Your task to perform on an android device: delete browsing data in the chrome app Image 0: 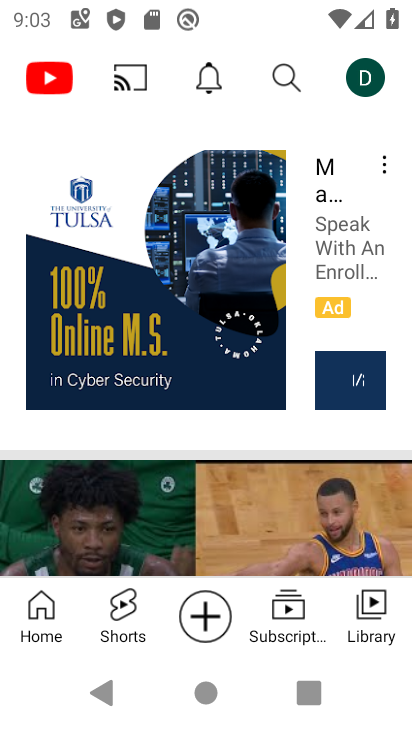
Step 0: press home button
Your task to perform on an android device: delete browsing data in the chrome app Image 1: 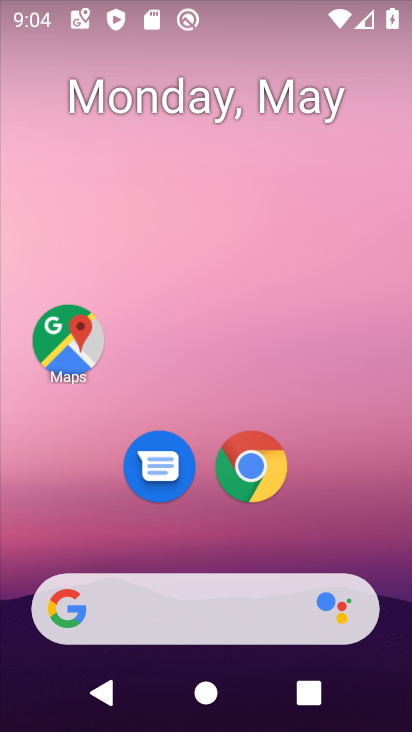
Step 1: drag from (239, 646) to (276, 227)
Your task to perform on an android device: delete browsing data in the chrome app Image 2: 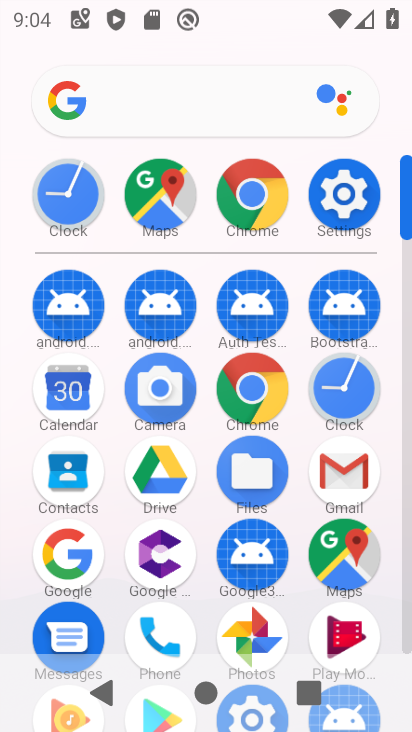
Step 2: drag from (246, 528) to (266, 431)
Your task to perform on an android device: delete browsing data in the chrome app Image 3: 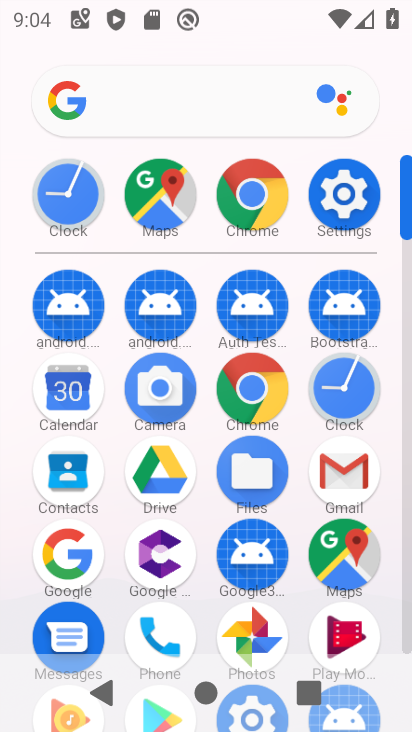
Step 3: click (252, 208)
Your task to perform on an android device: delete browsing data in the chrome app Image 4: 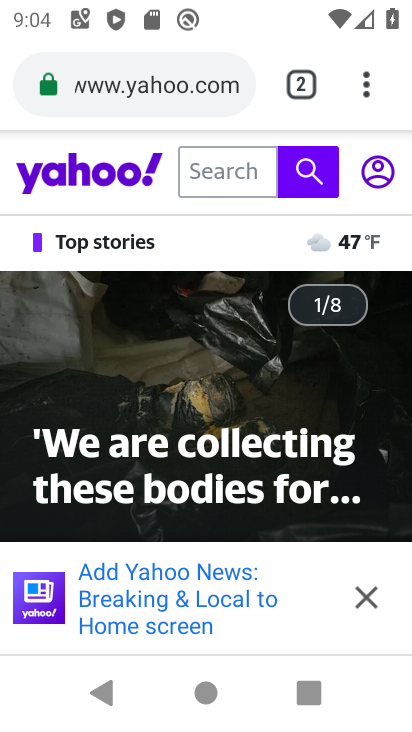
Step 4: click (370, 98)
Your task to perform on an android device: delete browsing data in the chrome app Image 5: 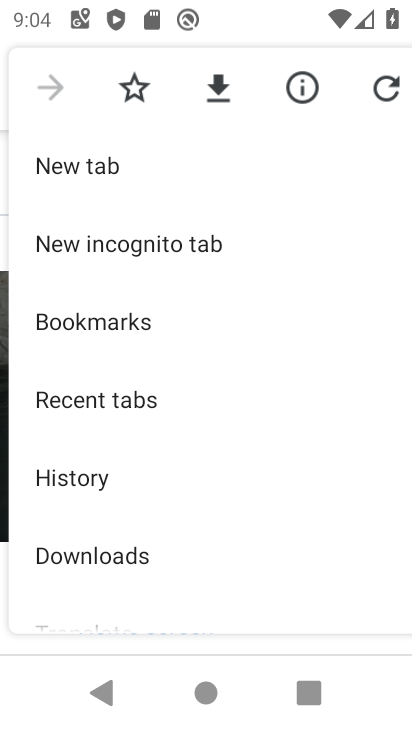
Step 5: drag from (174, 503) to (195, 336)
Your task to perform on an android device: delete browsing data in the chrome app Image 6: 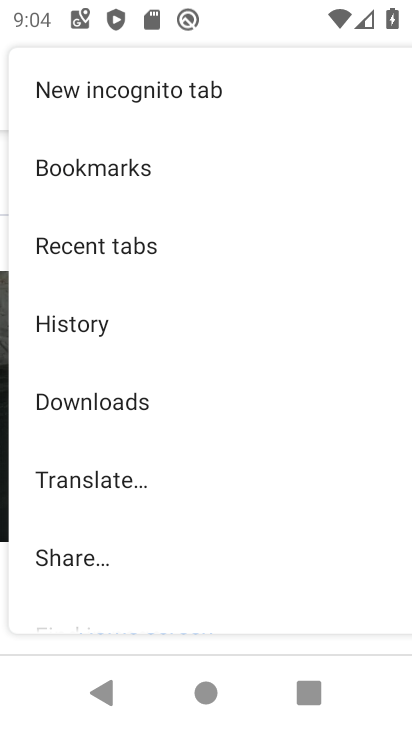
Step 6: click (89, 319)
Your task to perform on an android device: delete browsing data in the chrome app Image 7: 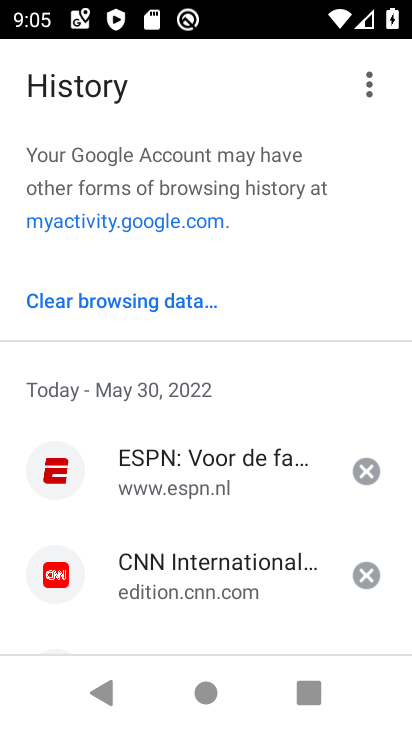
Step 7: click (101, 260)
Your task to perform on an android device: delete browsing data in the chrome app Image 8: 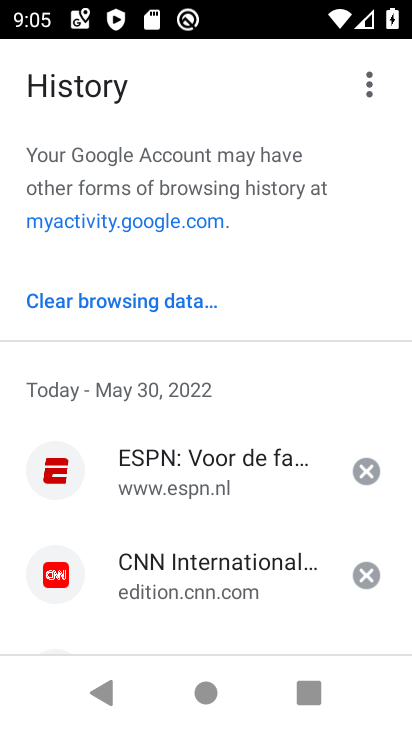
Step 8: click (107, 302)
Your task to perform on an android device: delete browsing data in the chrome app Image 9: 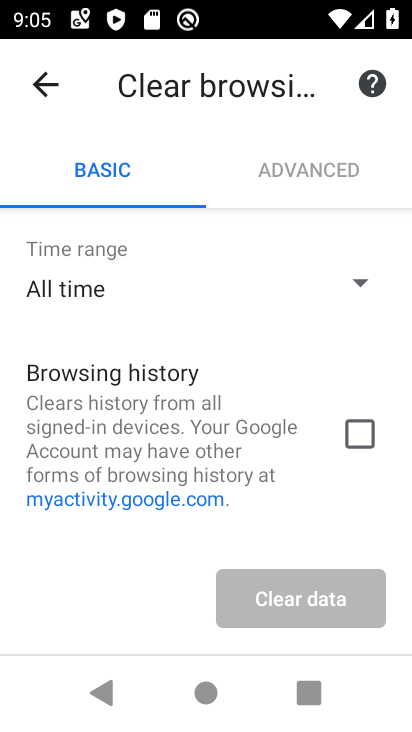
Step 9: drag from (275, 253) to (285, 80)
Your task to perform on an android device: delete browsing data in the chrome app Image 10: 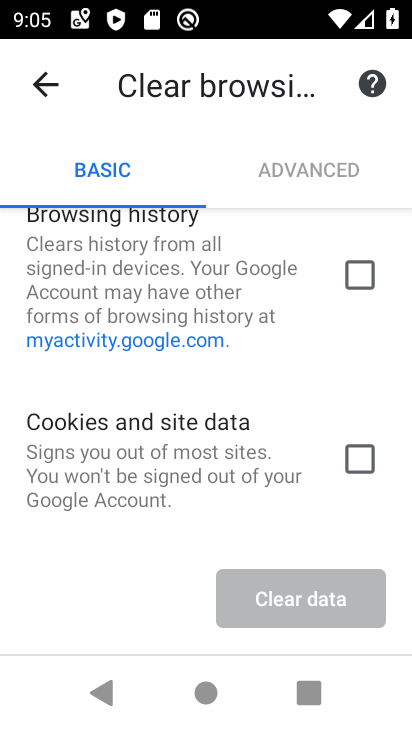
Step 10: click (350, 264)
Your task to perform on an android device: delete browsing data in the chrome app Image 11: 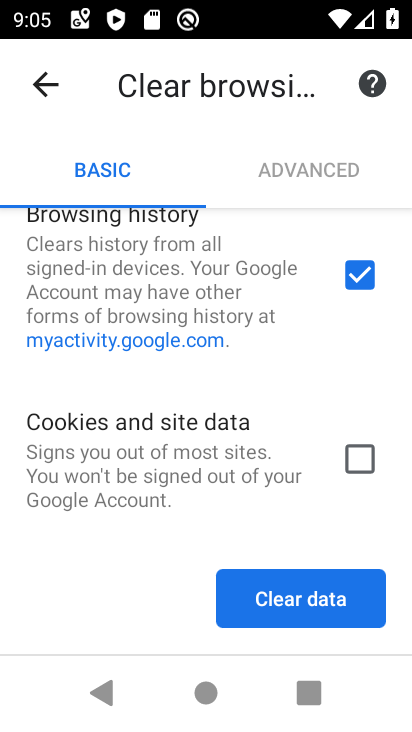
Step 11: click (276, 599)
Your task to perform on an android device: delete browsing data in the chrome app Image 12: 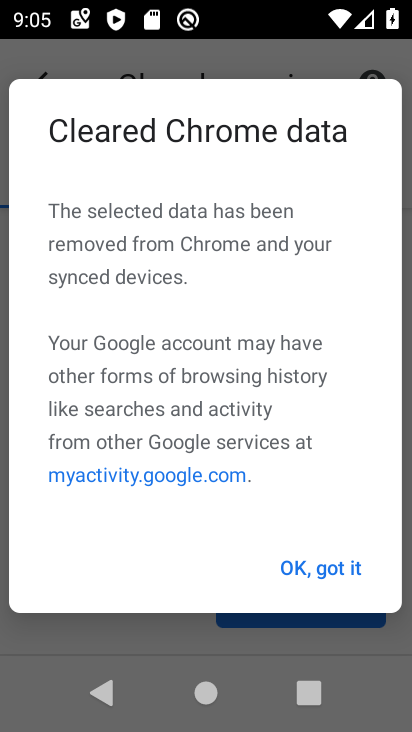
Step 12: task complete